Your task to perform on an android device: turn pop-ups off in chrome Image 0: 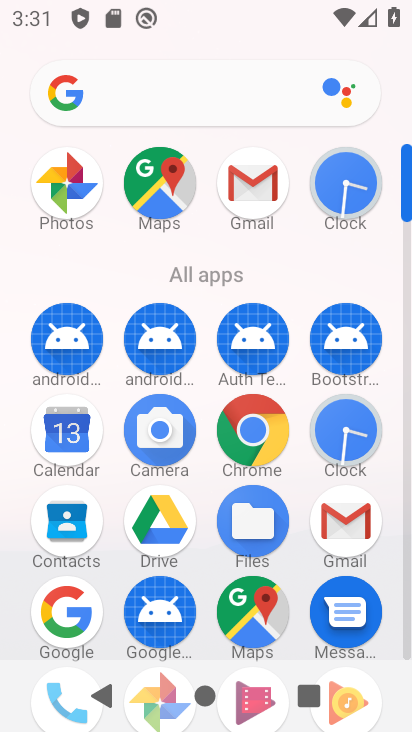
Step 0: click (264, 425)
Your task to perform on an android device: turn pop-ups off in chrome Image 1: 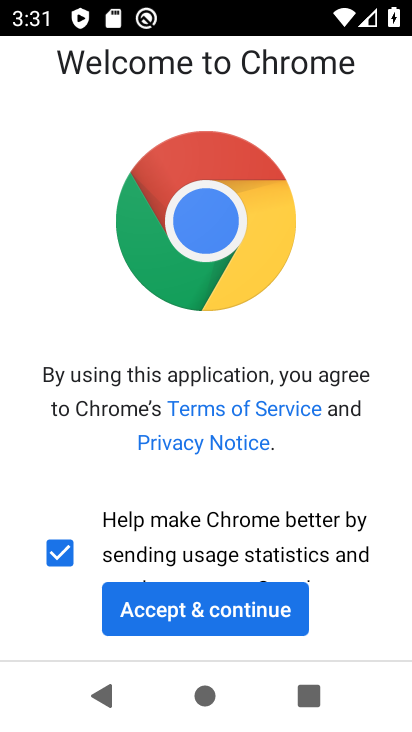
Step 1: click (258, 615)
Your task to perform on an android device: turn pop-ups off in chrome Image 2: 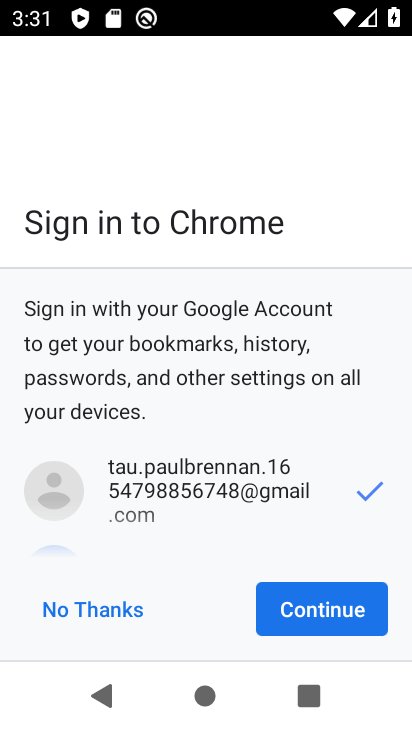
Step 2: click (272, 609)
Your task to perform on an android device: turn pop-ups off in chrome Image 3: 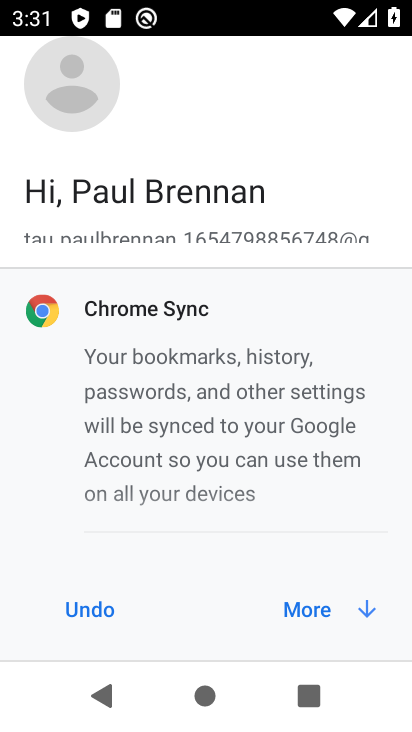
Step 3: click (289, 602)
Your task to perform on an android device: turn pop-ups off in chrome Image 4: 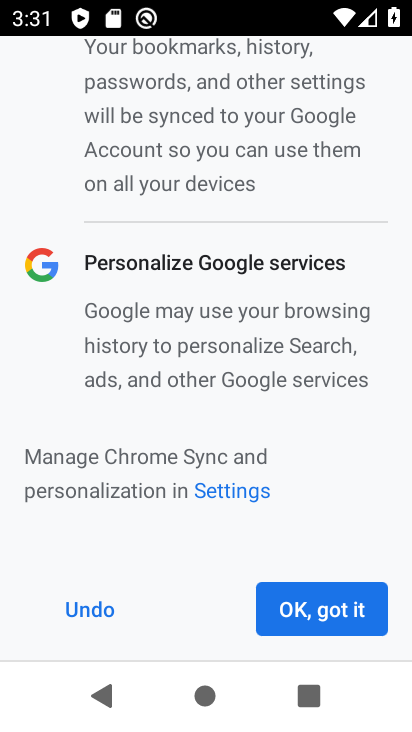
Step 4: click (289, 602)
Your task to perform on an android device: turn pop-ups off in chrome Image 5: 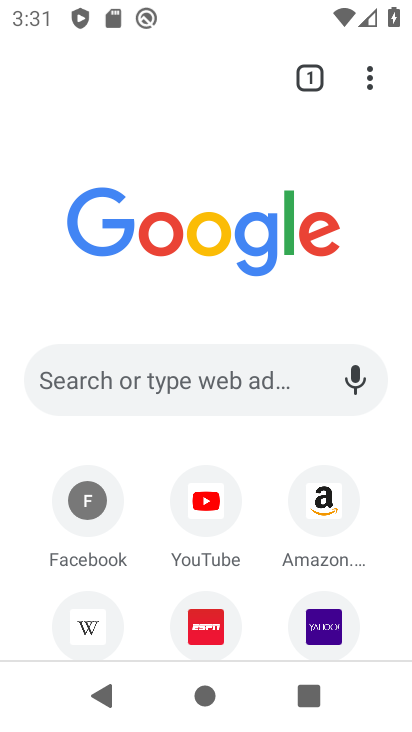
Step 5: click (373, 67)
Your task to perform on an android device: turn pop-ups off in chrome Image 6: 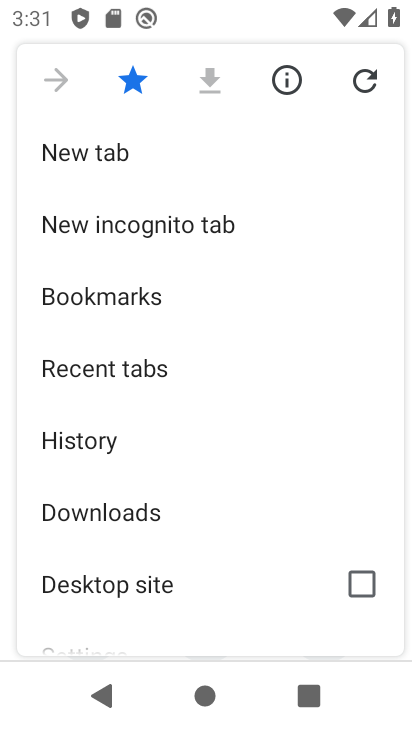
Step 6: drag from (197, 622) to (169, 172)
Your task to perform on an android device: turn pop-ups off in chrome Image 7: 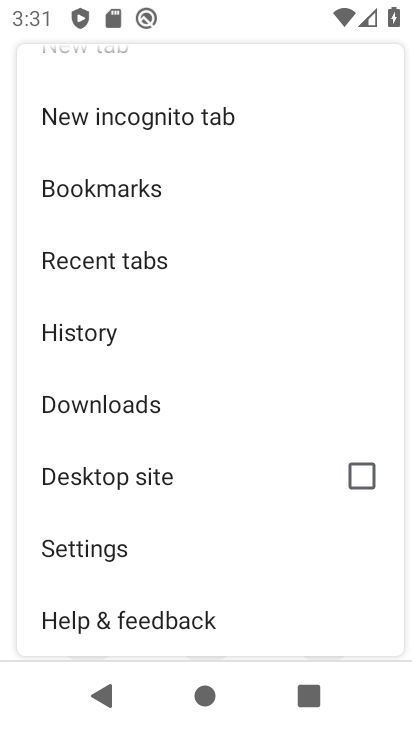
Step 7: click (188, 538)
Your task to perform on an android device: turn pop-ups off in chrome Image 8: 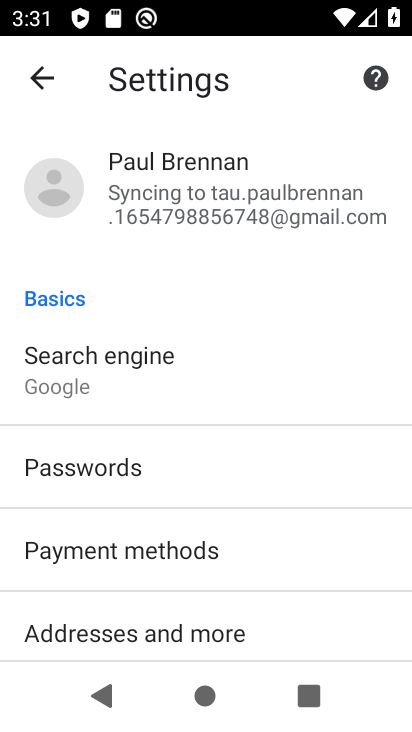
Step 8: drag from (287, 634) to (253, 239)
Your task to perform on an android device: turn pop-ups off in chrome Image 9: 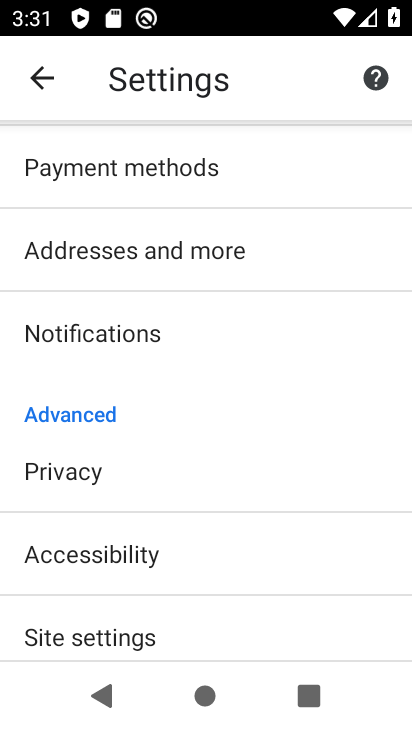
Step 9: click (305, 649)
Your task to perform on an android device: turn pop-ups off in chrome Image 10: 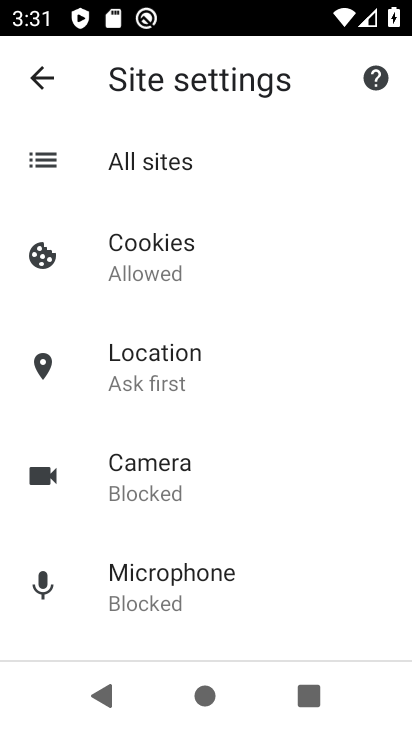
Step 10: drag from (305, 649) to (269, 250)
Your task to perform on an android device: turn pop-ups off in chrome Image 11: 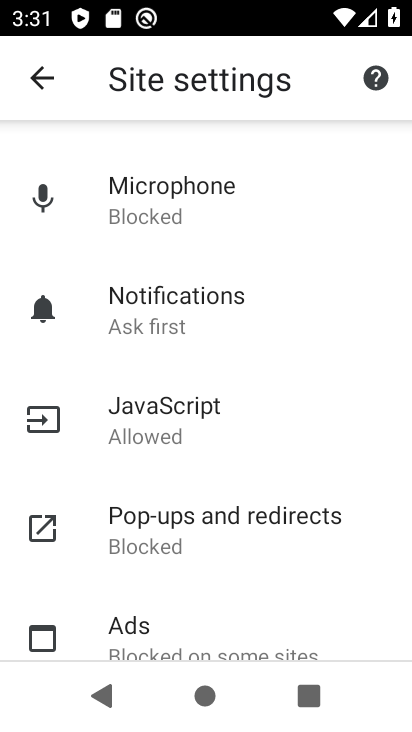
Step 11: click (287, 533)
Your task to perform on an android device: turn pop-ups off in chrome Image 12: 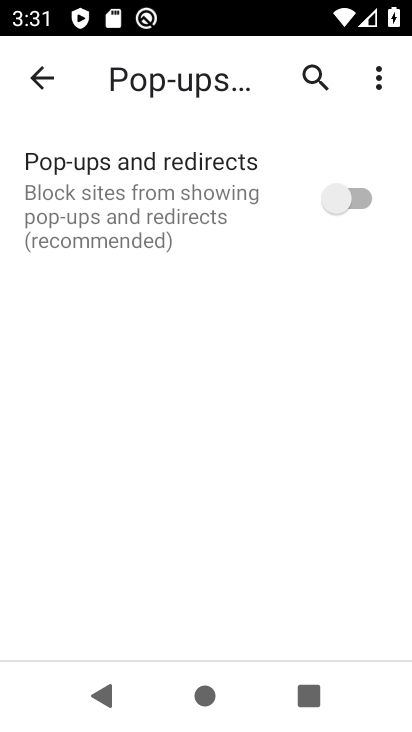
Step 12: task complete